Your task to perform on an android device: Set the phone to "Do not disturb". Image 0: 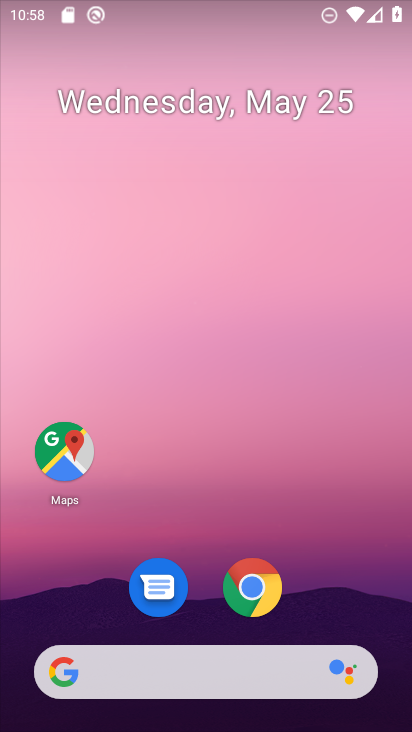
Step 0: drag from (348, 574) to (292, 34)
Your task to perform on an android device: Set the phone to "Do not disturb". Image 1: 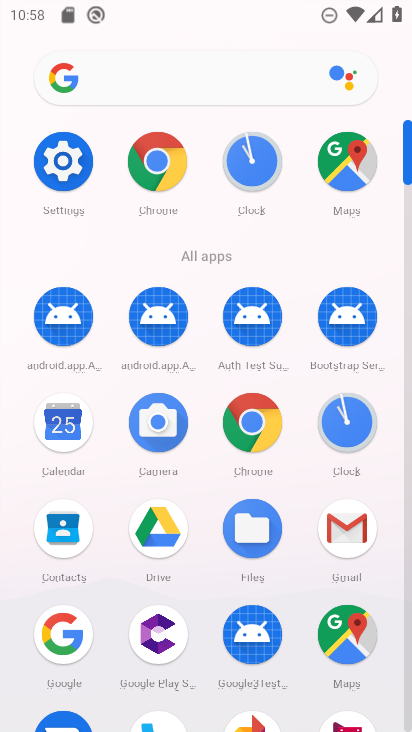
Step 1: drag from (0, 579) to (24, 250)
Your task to perform on an android device: Set the phone to "Do not disturb". Image 2: 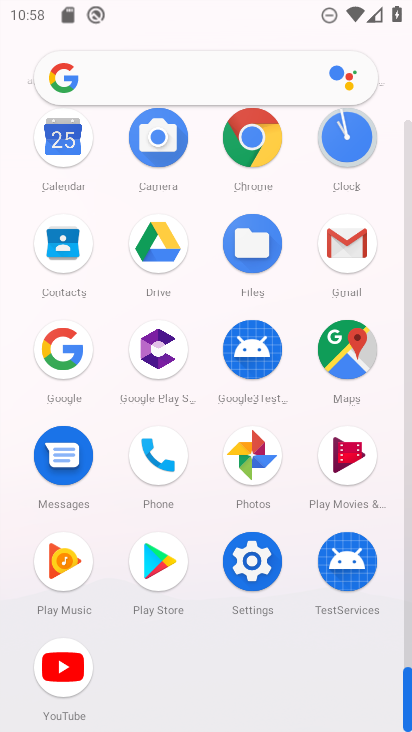
Step 2: click (252, 554)
Your task to perform on an android device: Set the phone to "Do not disturb". Image 3: 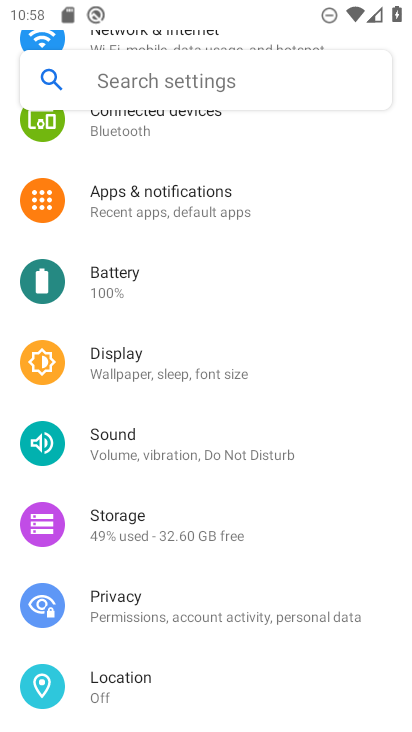
Step 3: click (179, 456)
Your task to perform on an android device: Set the phone to "Do not disturb". Image 4: 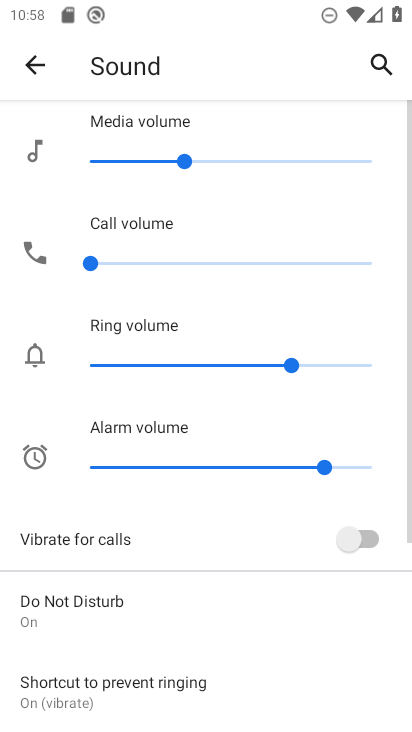
Step 4: drag from (211, 562) to (249, 75)
Your task to perform on an android device: Set the phone to "Do not disturb". Image 5: 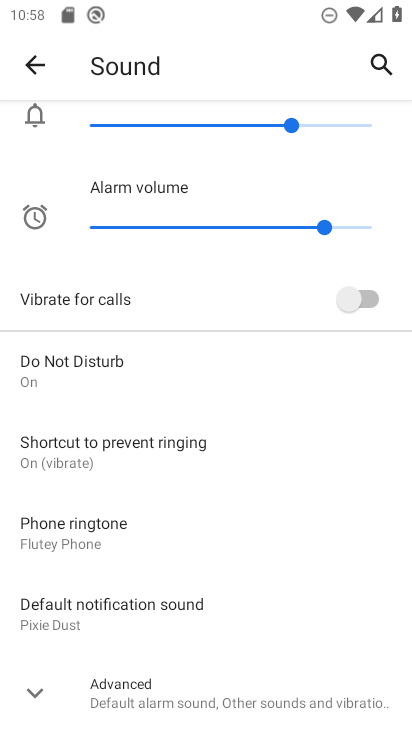
Step 5: click (31, 697)
Your task to perform on an android device: Set the phone to "Do not disturb". Image 6: 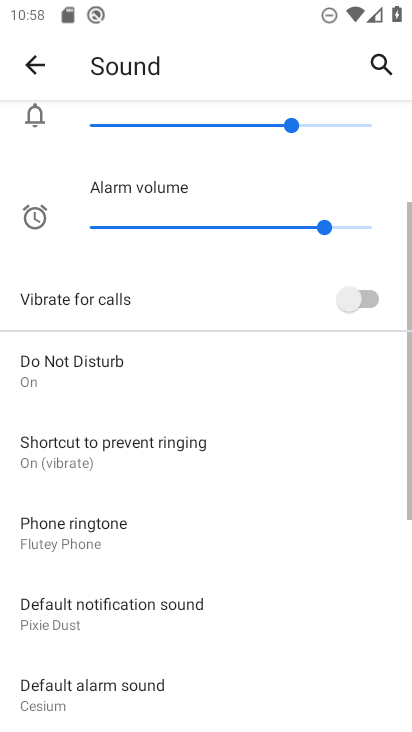
Step 6: drag from (182, 654) to (201, 130)
Your task to perform on an android device: Set the phone to "Do not disturb". Image 7: 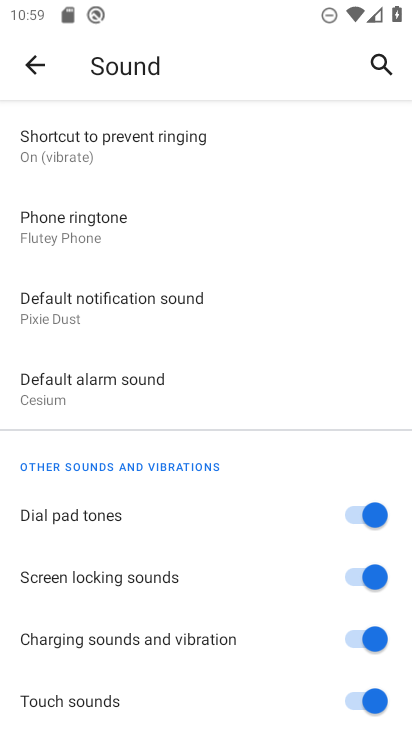
Step 7: drag from (240, 492) to (241, 192)
Your task to perform on an android device: Set the phone to "Do not disturb". Image 8: 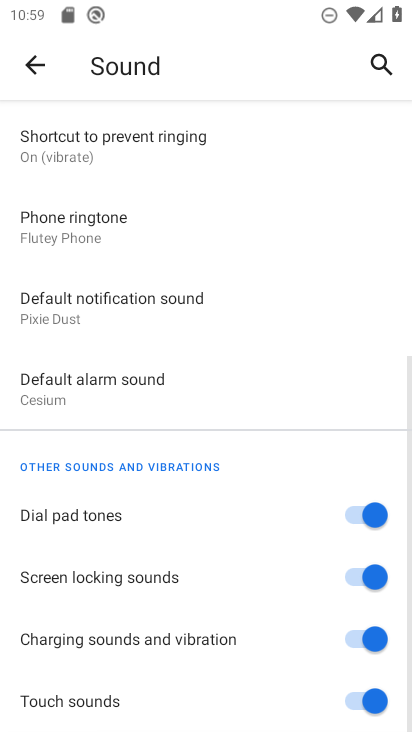
Step 8: drag from (254, 197) to (250, 731)
Your task to perform on an android device: Set the phone to "Do not disturb". Image 9: 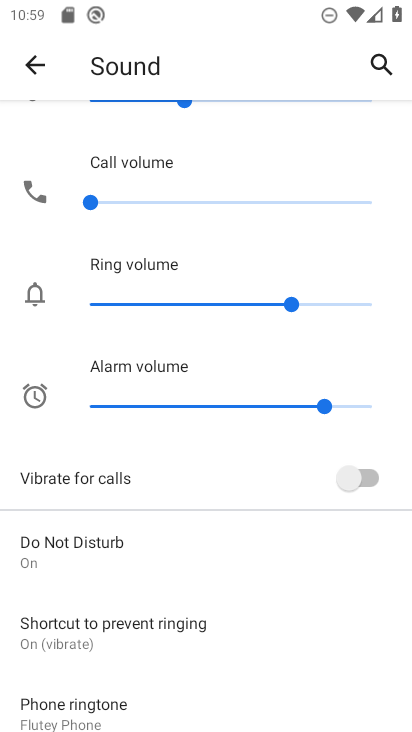
Step 9: click (140, 535)
Your task to perform on an android device: Set the phone to "Do not disturb". Image 10: 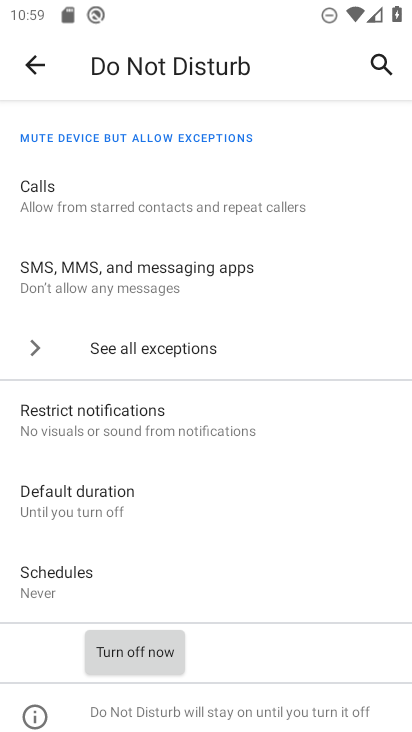
Step 10: task complete